Your task to perform on an android device: Open Reddit.com Image 0: 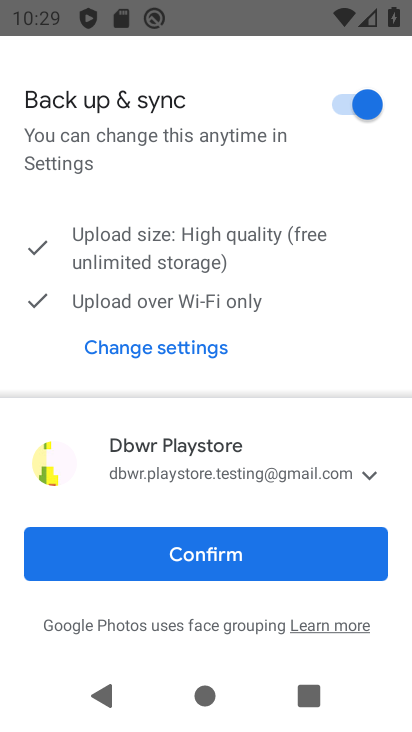
Step 0: click (138, 552)
Your task to perform on an android device: Open Reddit.com Image 1: 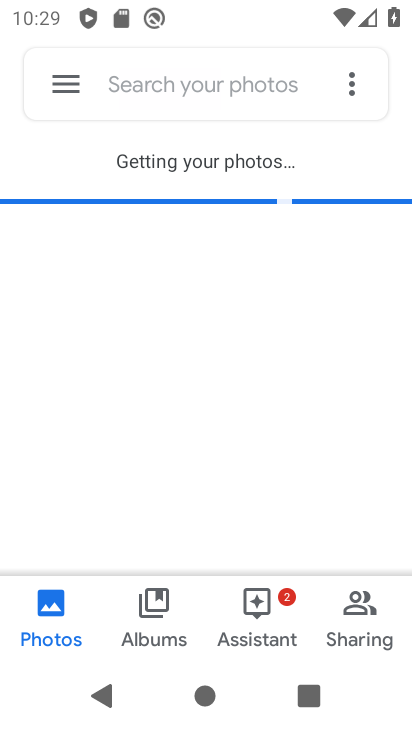
Step 1: press home button
Your task to perform on an android device: Open Reddit.com Image 2: 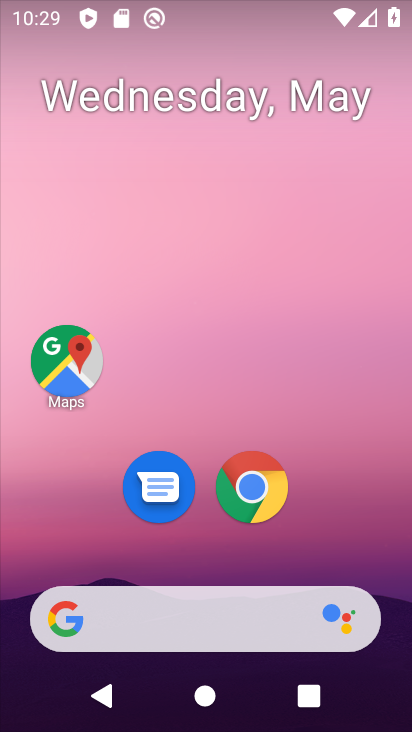
Step 2: click (252, 496)
Your task to perform on an android device: Open Reddit.com Image 3: 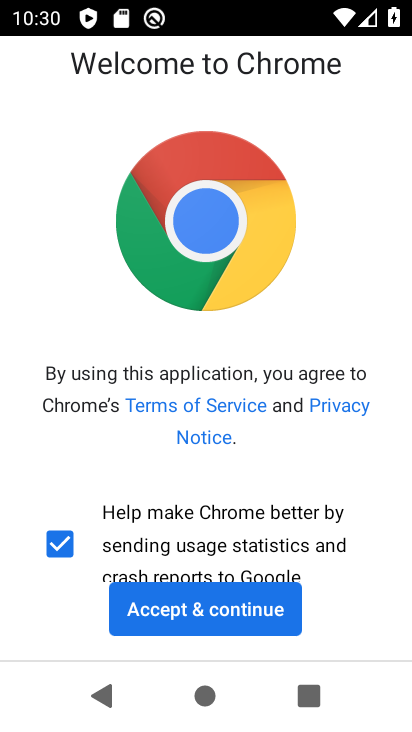
Step 3: click (192, 607)
Your task to perform on an android device: Open Reddit.com Image 4: 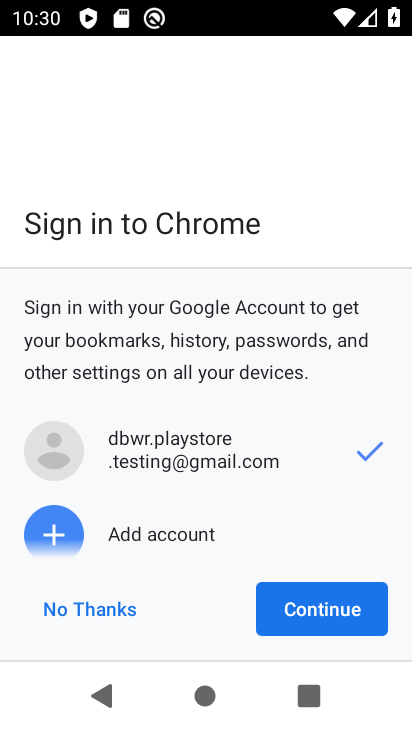
Step 4: click (320, 601)
Your task to perform on an android device: Open Reddit.com Image 5: 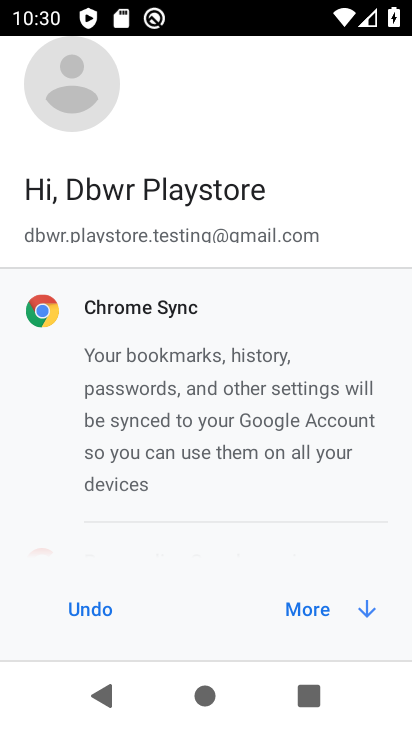
Step 5: click (317, 601)
Your task to perform on an android device: Open Reddit.com Image 6: 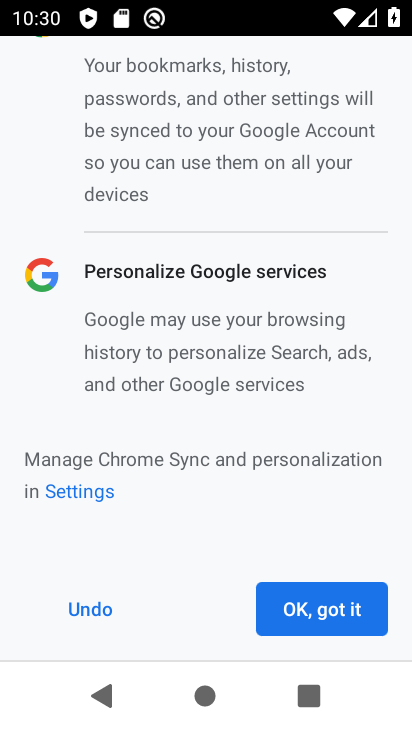
Step 6: click (318, 602)
Your task to perform on an android device: Open Reddit.com Image 7: 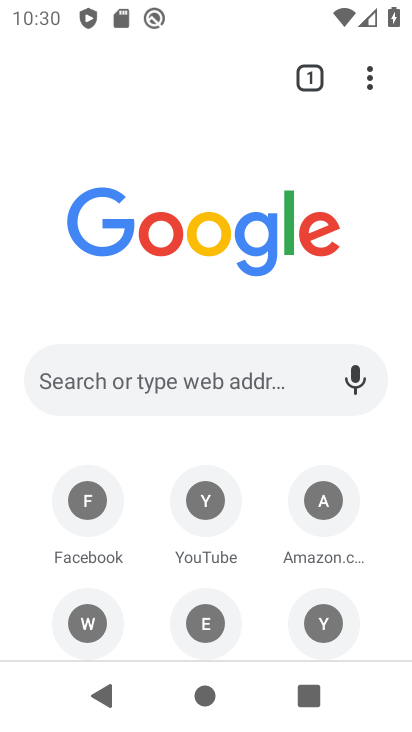
Step 7: click (115, 86)
Your task to perform on an android device: Open Reddit.com Image 8: 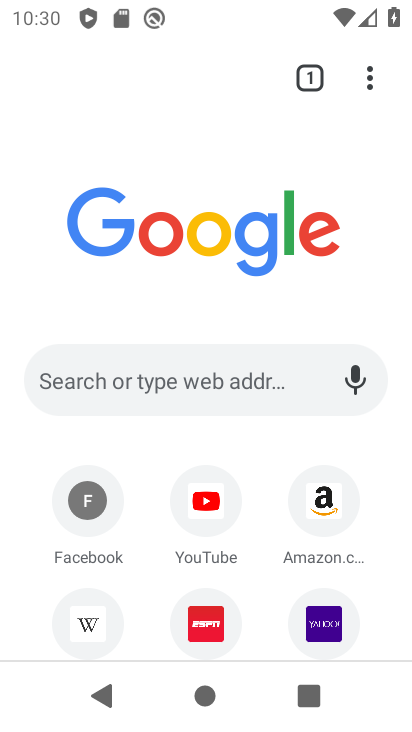
Step 8: click (100, 392)
Your task to perform on an android device: Open Reddit.com Image 9: 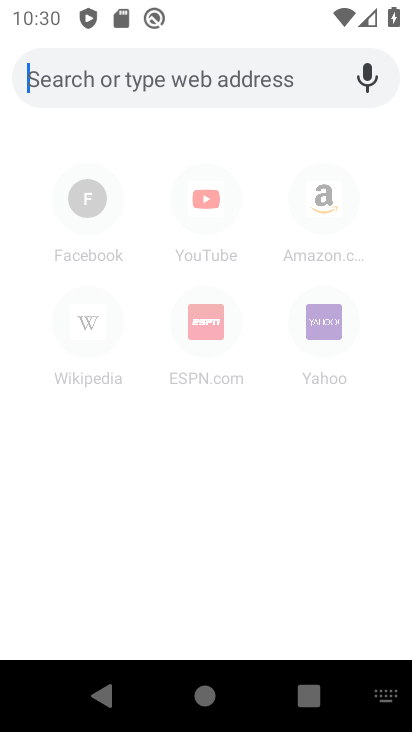
Step 9: type "Reddit.com"
Your task to perform on an android device: Open Reddit.com Image 10: 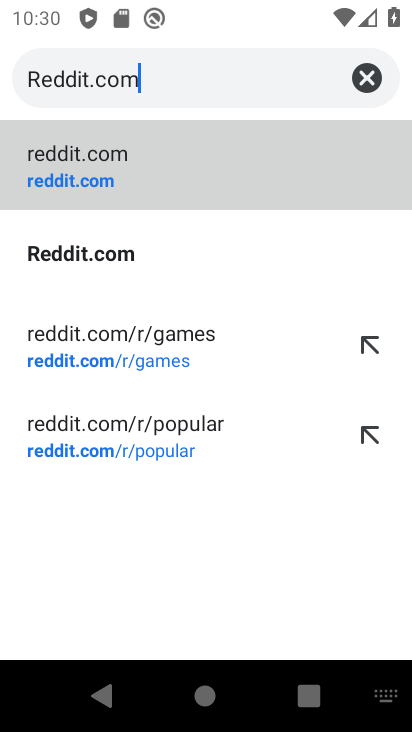
Step 10: click (145, 151)
Your task to perform on an android device: Open Reddit.com Image 11: 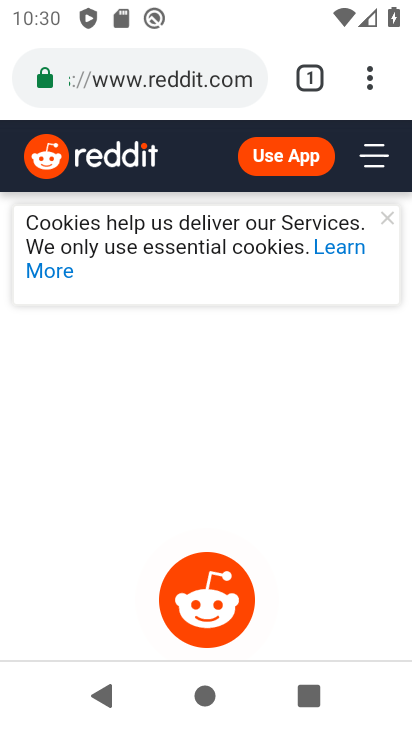
Step 11: task complete